Your task to perform on an android device: Open eBay Image 0: 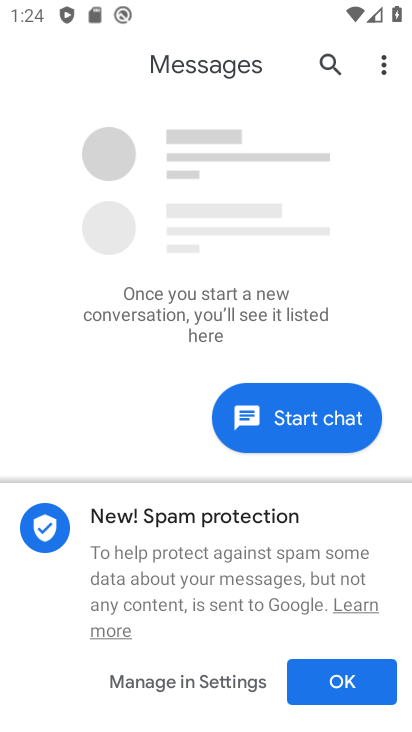
Step 0: press home button
Your task to perform on an android device: Open eBay Image 1: 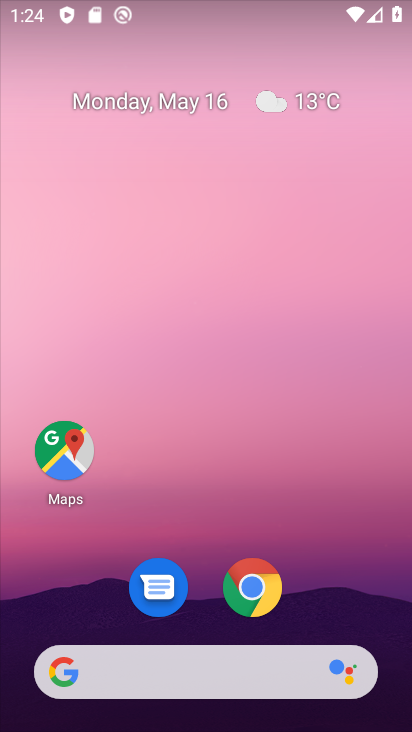
Step 1: click (260, 585)
Your task to perform on an android device: Open eBay Image 2: 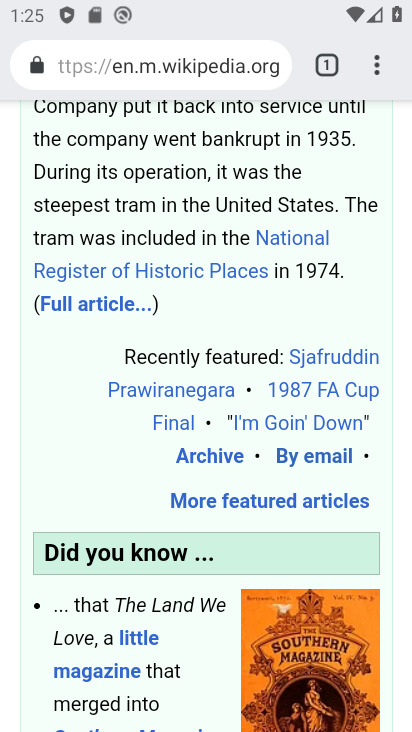
Step 2: click (324, 66)
Your task to perform on an android device: Open eBay Image 3: 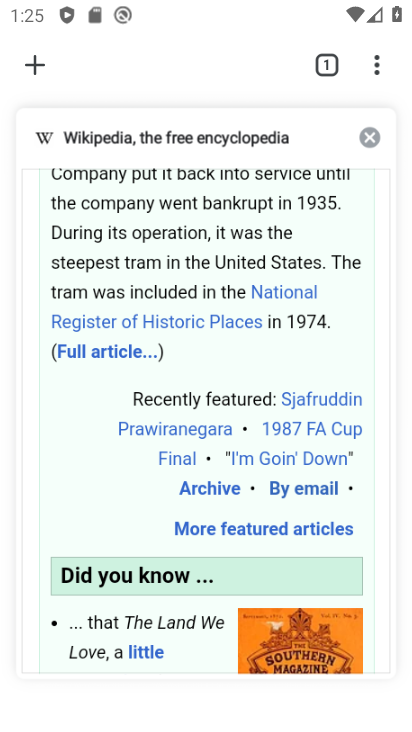
Step 3: click (373, 136)
Your task to perform on an android device: Open eBay Image 4: 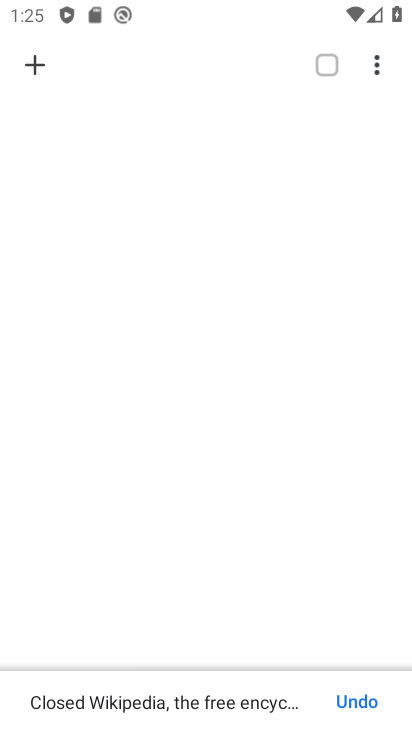
Step 4: click (26, 65)
Your task to perform on an android device: Open eBay Image 5: 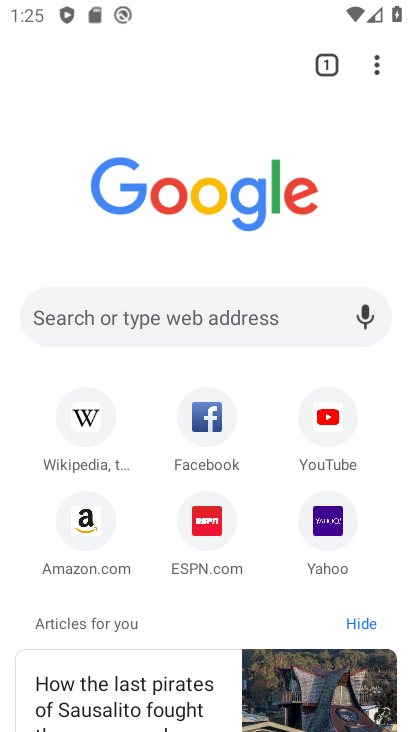
Step 5: click (142, 313)
Your task to perform on an android device: Open eBay Image 6: 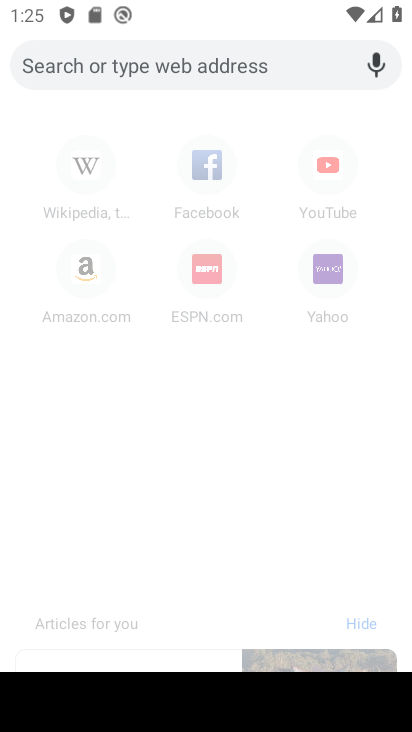
Step 6: type "ebay"
Your task to perform on an android device: Open eBay Image 7: 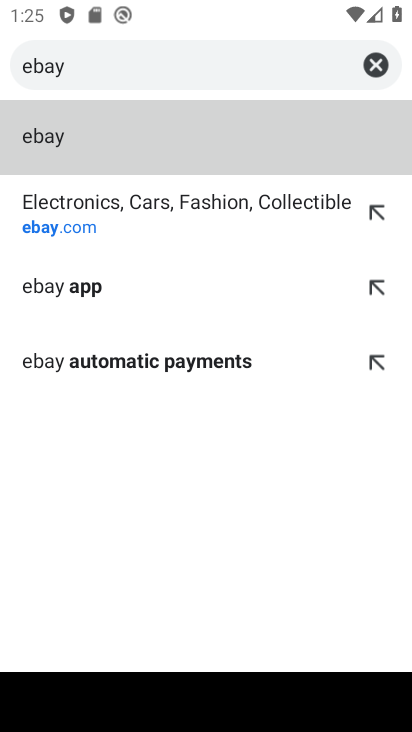
Step 7: click (48, 153)
Your task to perform on an android device: Open eBay Image 8: 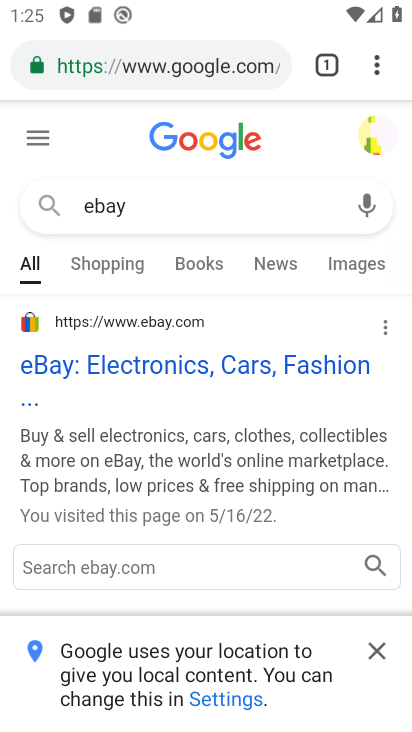
Step 8: click (171, 365)
Your task to perform on an android device: Open eBay Image 9: 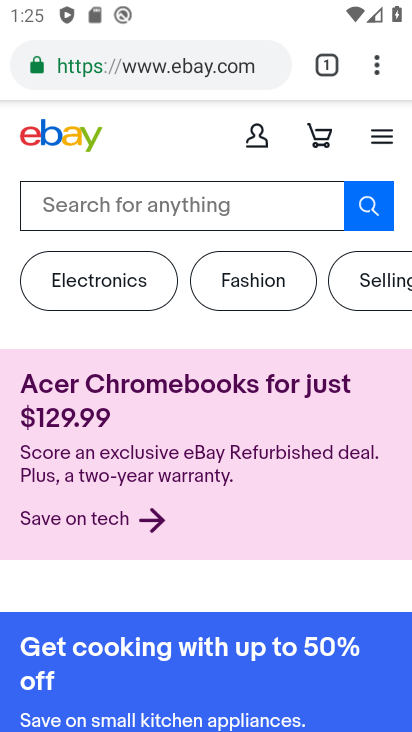
Step 9: task complete